Your task to perform on an android device: change notifications settings Image 0: 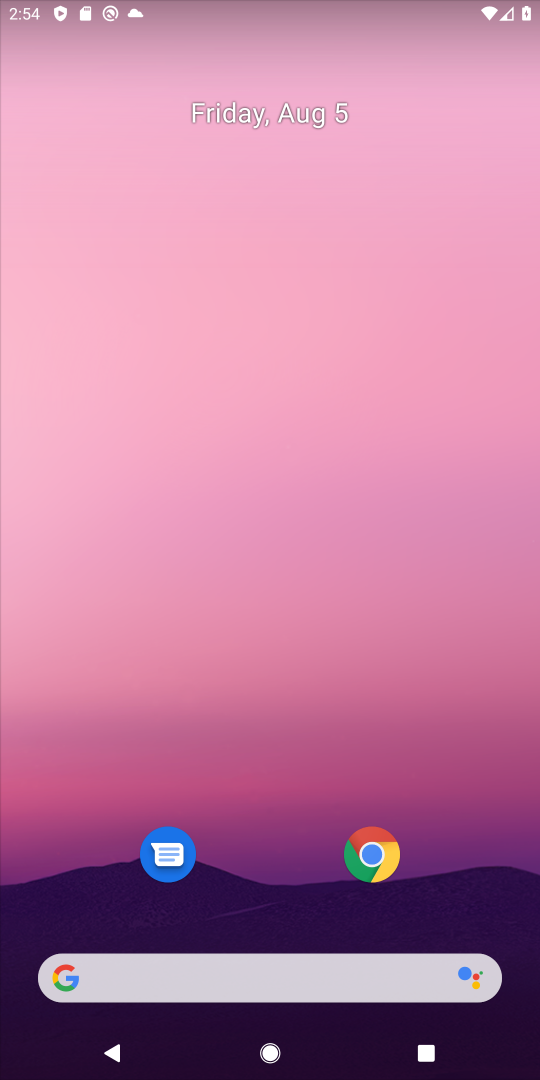
Step 0: drag from (40, 1024) to (387, 144)
Your task to perform on an android device: change notifications settings Image 1: 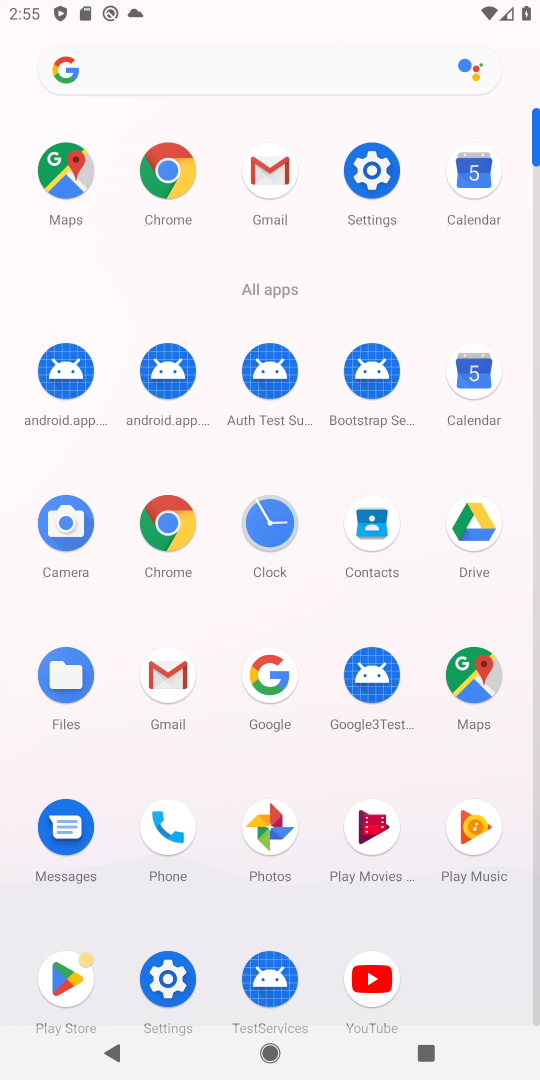
Step 1: click (171, 977)
Your task to perform on an android device: change notifications settings Image 2: 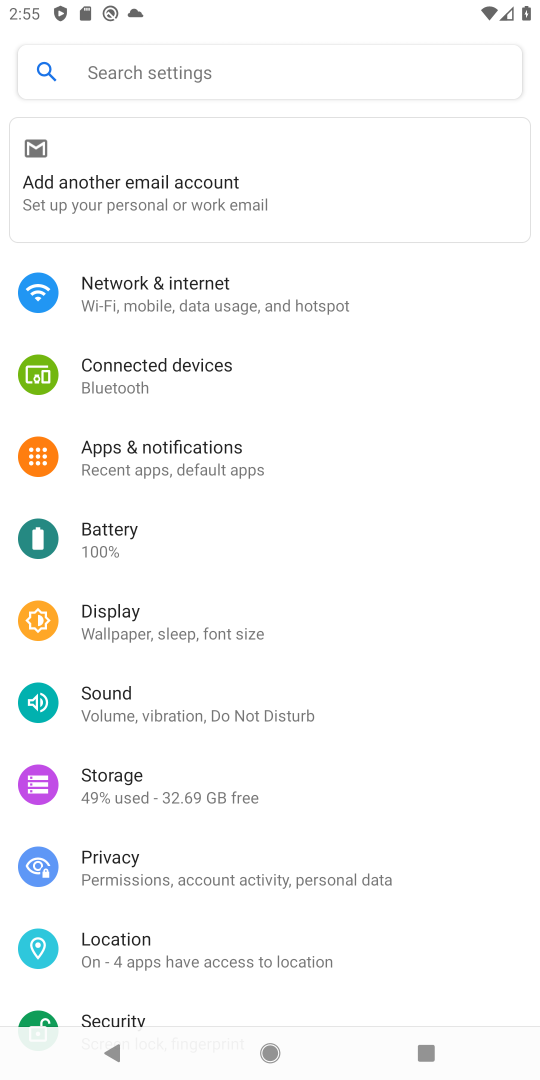
Step 2: click (223, 435)
Your task to perform on an android device: change notifications settings Image 3: 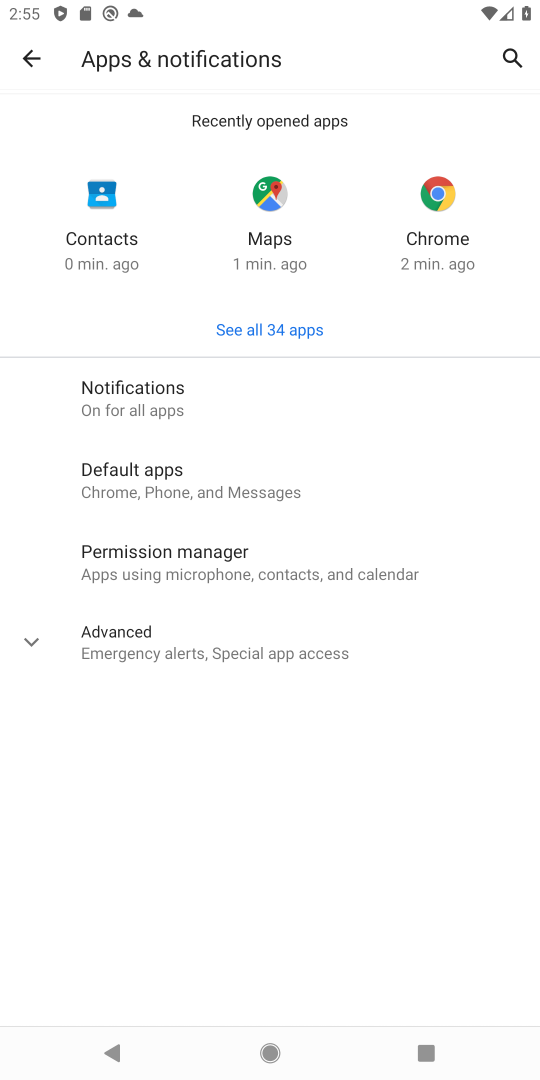
Step 3: click (131, 395)
Your task to perform on an android device: change notifications settings Image 4: 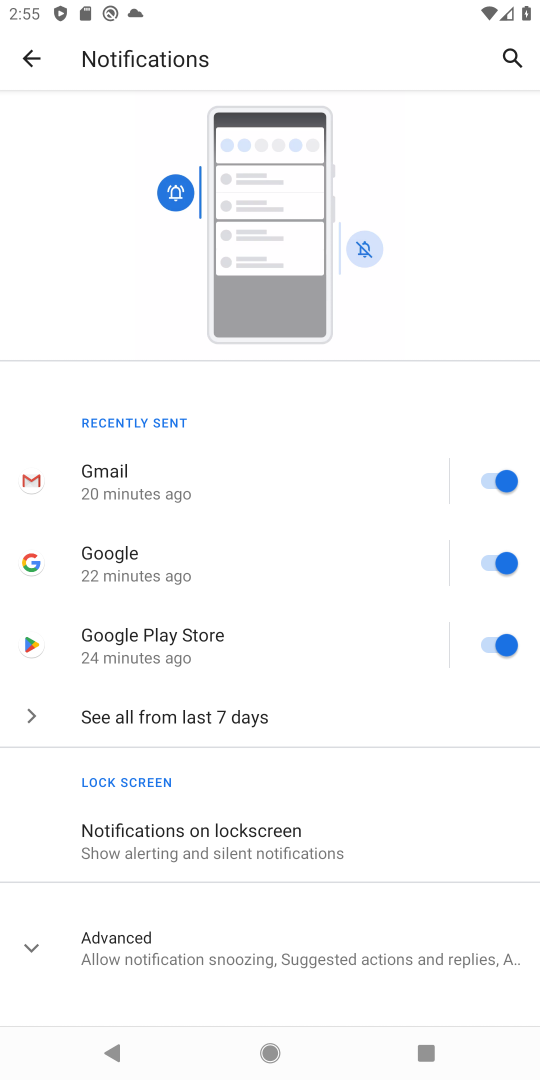
Step 4: task complete